Your task to perform on an android device: Go to Google Image 0: 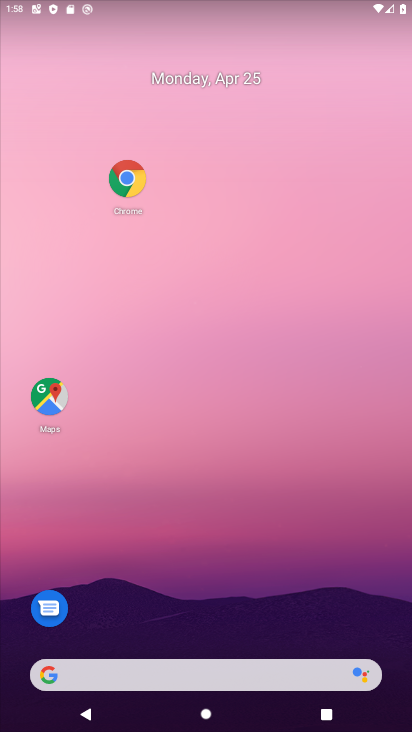
Step 0: drag from (163, 592) to (201, 201)
Your task to perform on an android device: Go to Google Image 1: 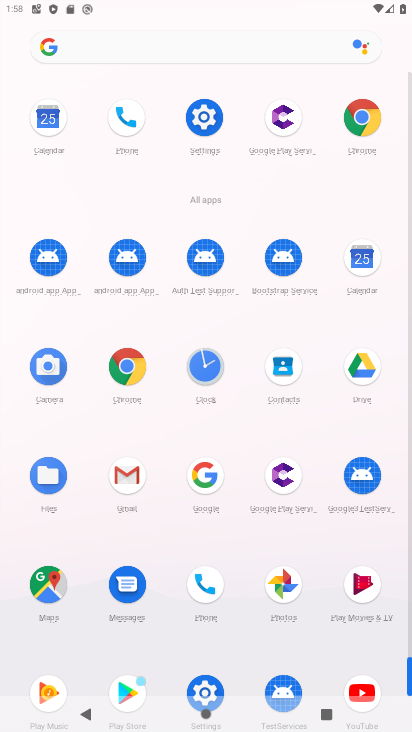
Step 1: click (213, 485)
Your task to perform on an android device: Go to Google Image 2: 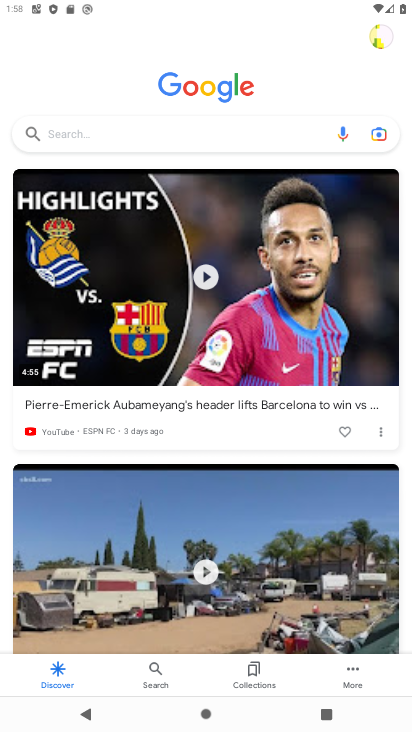
Step 2: task complete